Your task to perform on an android device: toggle wifi Image 0: 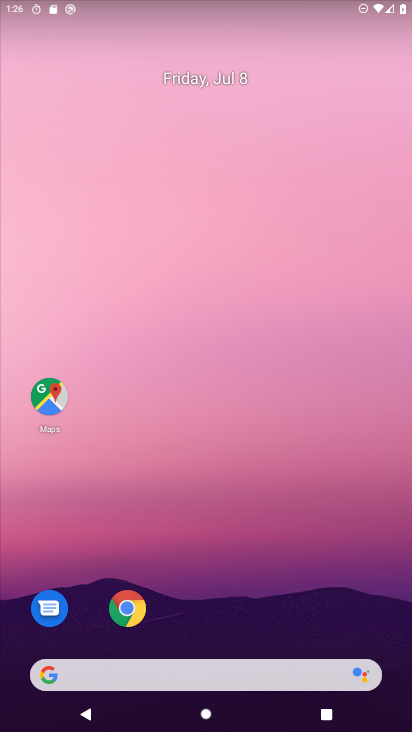
Step 0: drag from (257, 726) to (244, 7)
Your task to perform on an android device: toggle wifi Image 1: 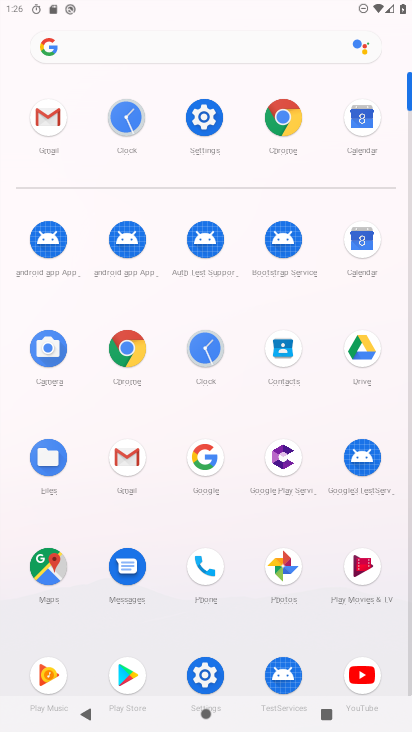
Step 1: click (199, 118)
Your task to perform on an android device: toggle wifi Image 2: 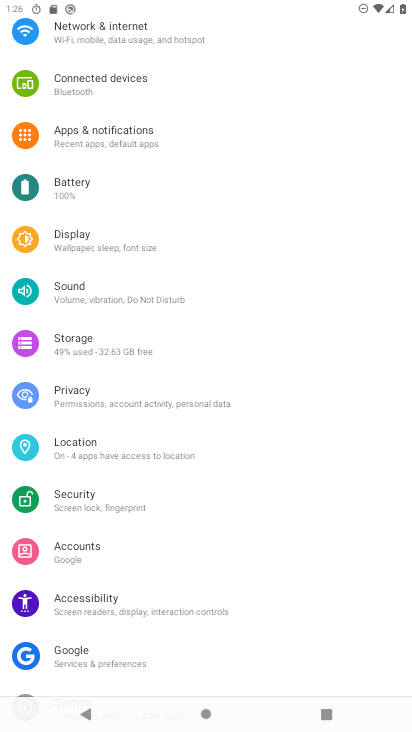
Step 2: drag from (155, 117) to (196, 695)
Your task to perform on an android device: toggle wifi Image 3: 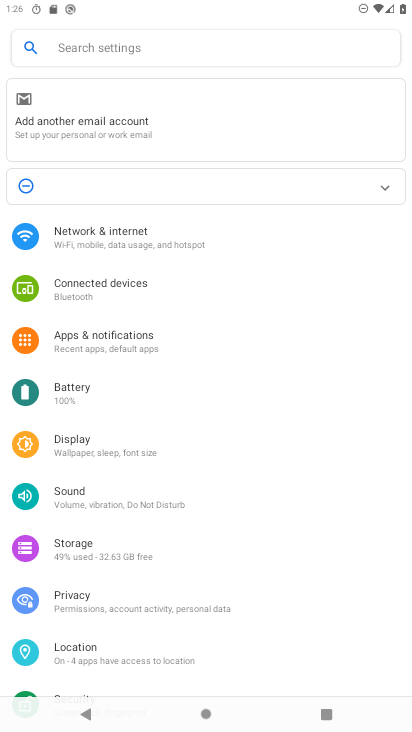
Step 3: click (84, 236)
Your task to perform on an android device: toggle wifi Image 4: 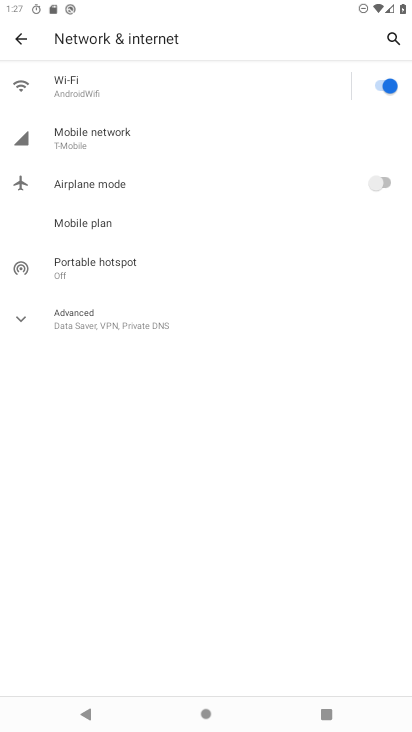
Step 4: click (386, 85)
Your task to perform on an android device: toggle wifi Image 5: 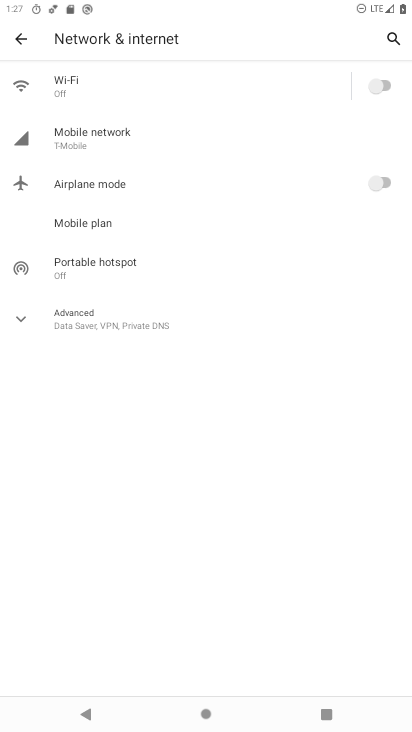
Step 5: task complete